Your task to perform on an android device: Go to sound settings Image 0: 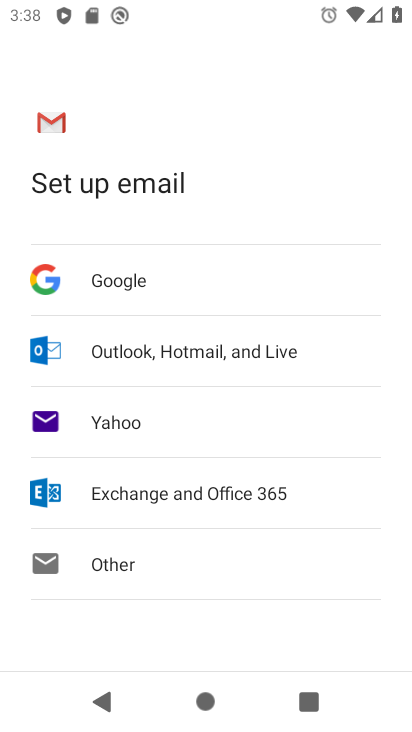
Step 0: press home button
Your task to perform on an android device: Go to sound settings Image 1: 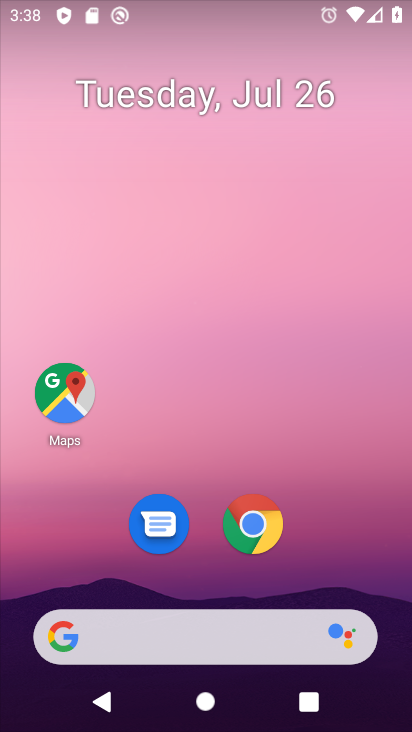
Step 1: drag from (360, 526) to (397, 91)
Your task to perform on an android device: Go to sound settings Image 2: 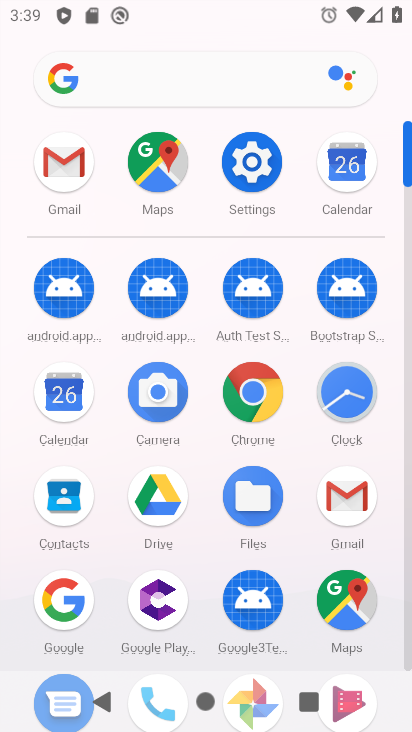
Step 2: click (262, 165)
Your task to perform on an android device: Go to sound settings Image 3: 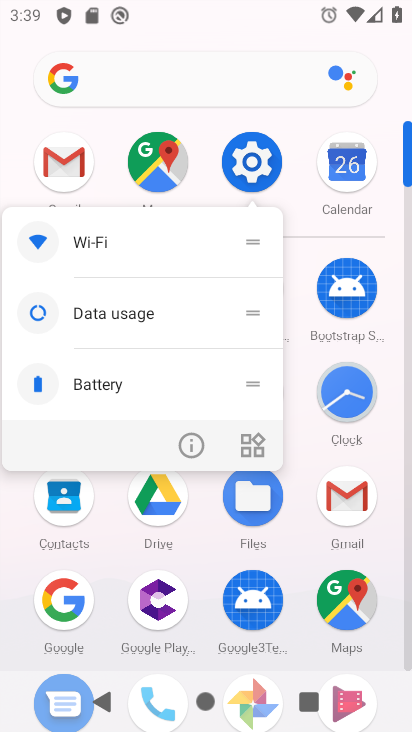
Step 3: click (262, 159)
Your task to perform on an android device: Go to sound settings Image 4: 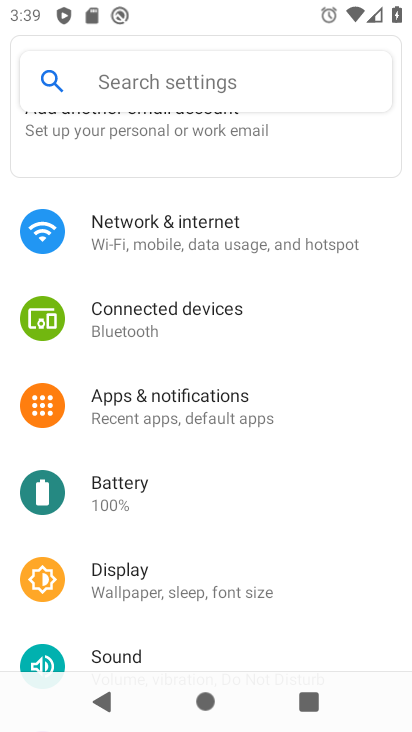
Step 4: drag from (235, 515) to (252, 355)
Your task to perform on an android device: Go to sound settings Image 5: 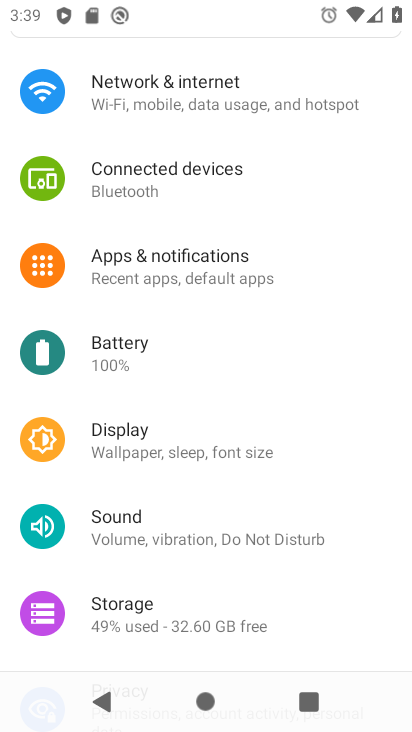
Step 5: click (218, 529)
Your task to perform on an android device: Go to sound settings Image 6: 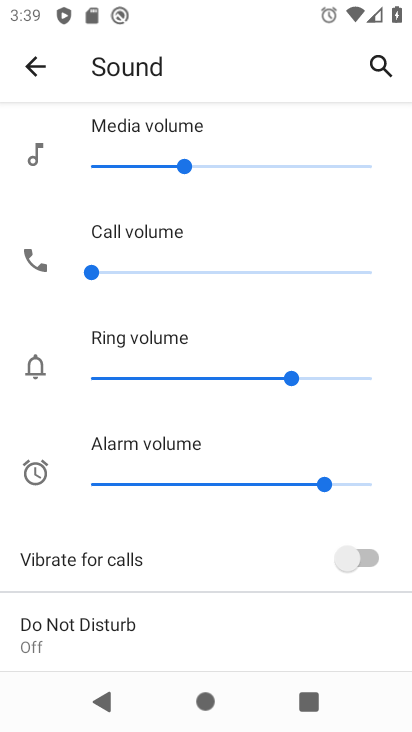
Step 6: task complete